Your task to perform on an android device: Search for "bose soundlink mini" on walmart, select the first entry, and add it to the cart. Image 0: 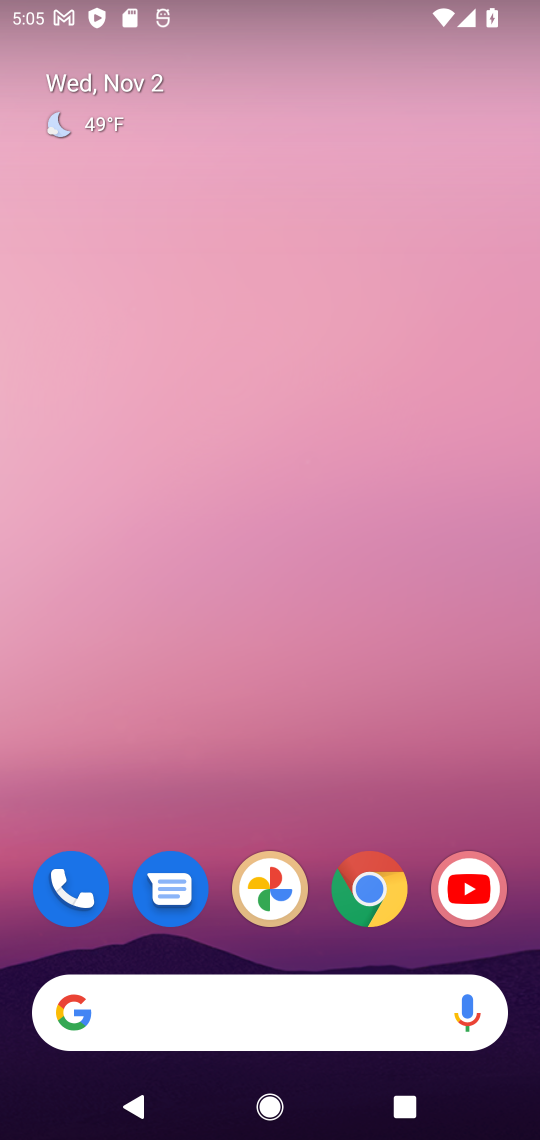
Step 0: click (358, 889)
Your task to perform on an android device: Search for "bose soundlink mini" on walmart, select the first entry, and add it to the cart. Image 1: 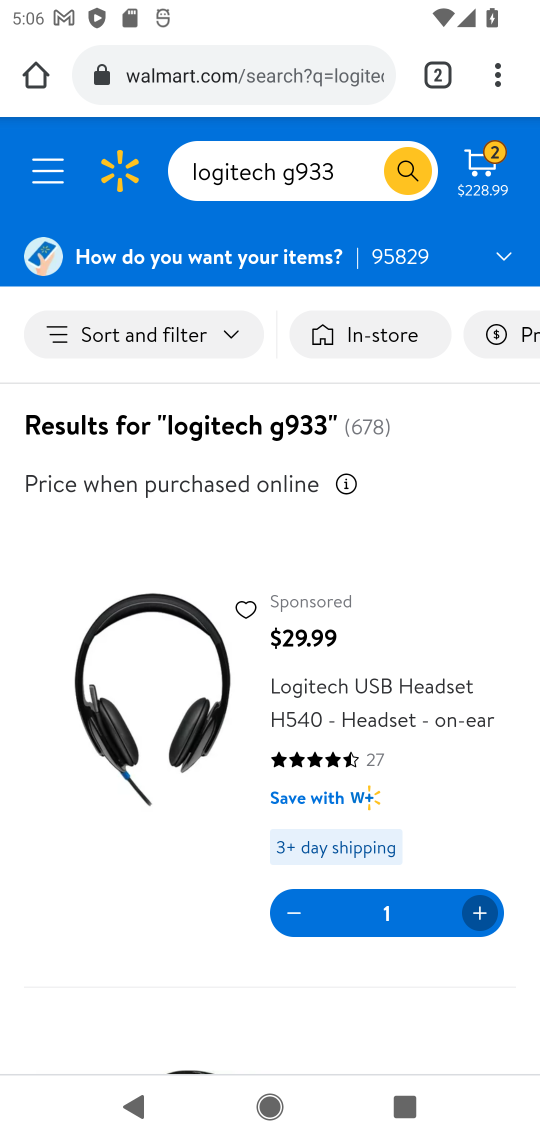
Step 1: click (302, 184)
Your task to perform on an android device: Search for "bose soundlink mini" on walmart, select the first entry, and add it to the cart. Image 2: 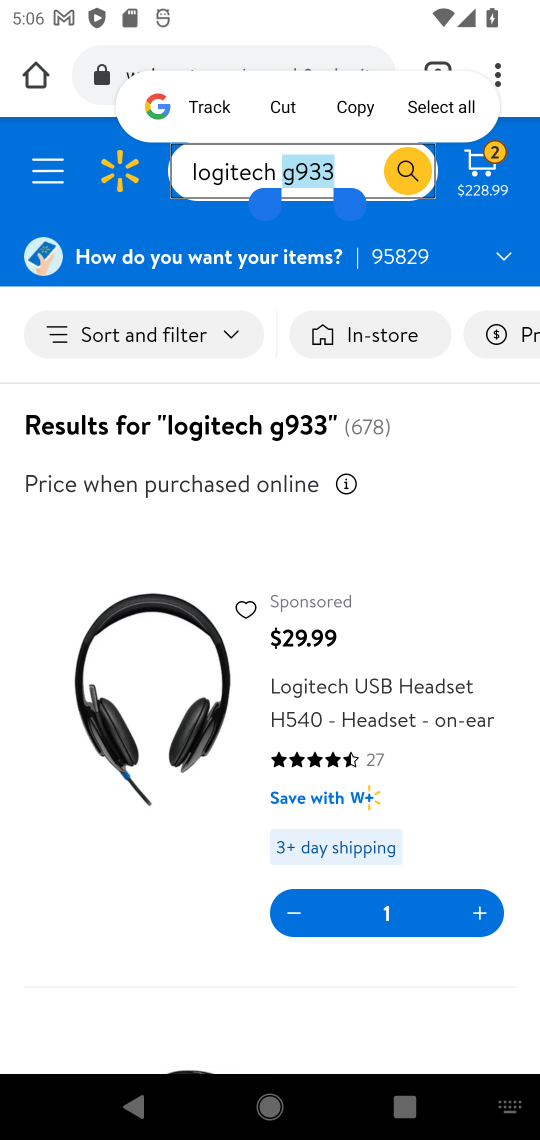
Step 2: click (353, 171)
Your task to perform on an android device: Search for "bose soundlink mini" on walmart, select the first entry, and add it to the cart. Image 3: 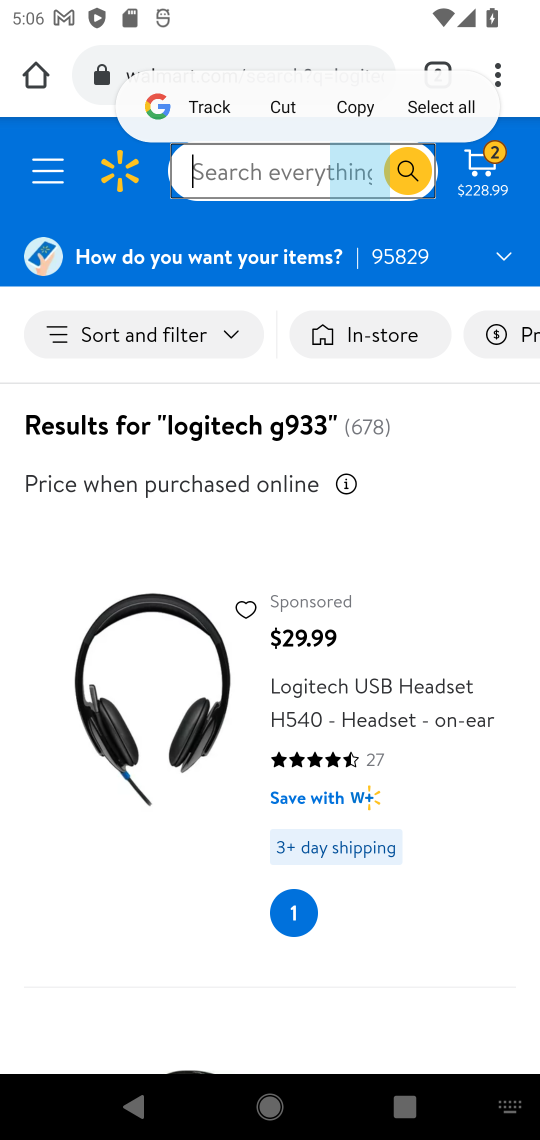
Step 3: click (407, 165)
Your task to perform on an android device: Search for "bose soundlink mini" on walmart, select the first entry, and add it to the cart. Image 4: 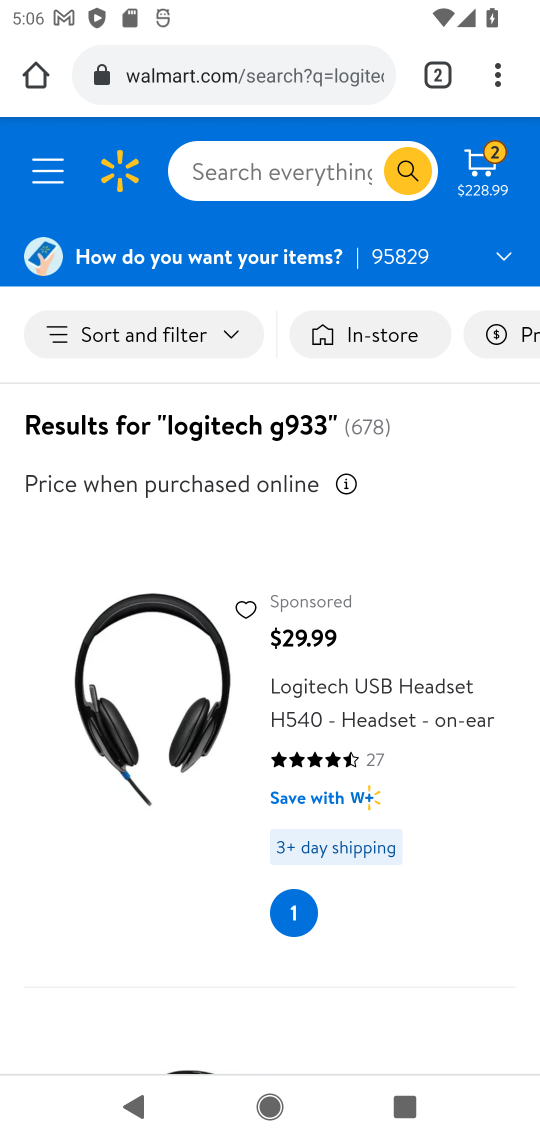
Step 4: click (302, 171)
Your task to perform on an android device: Search for "bose soundlink mini" on walmart, select the first entry, and add it to the cart. Image 5: 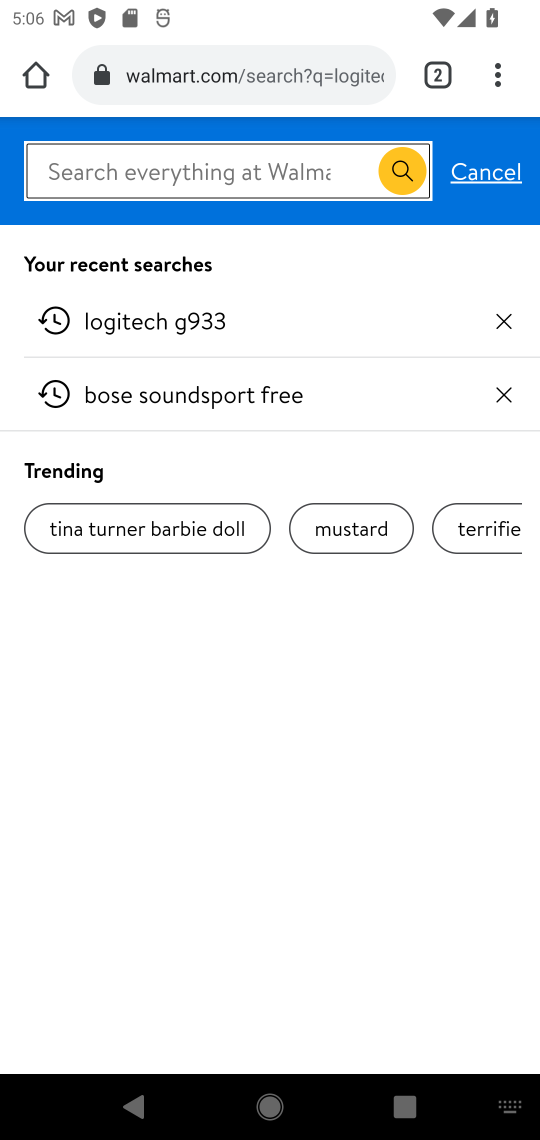
Step 5: type "bose soundlink mini"
Your task to perform on an android device: Search for "bose soundlink mini" on walmart, select the first entry, and add it to the cart. Image 6: 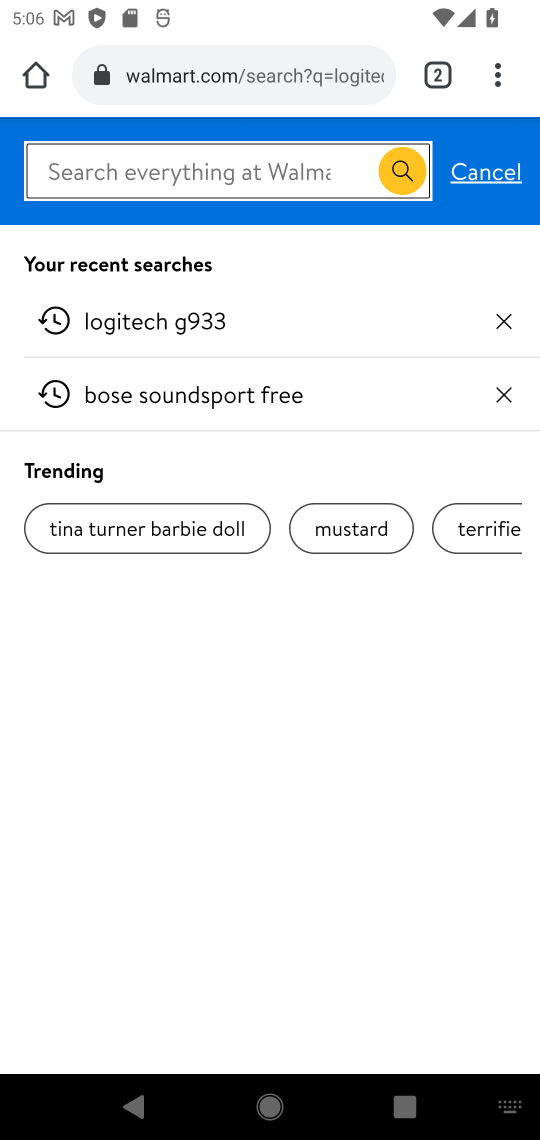
Step 6: press enter
Your task to perform on an android device: Search for "bose soundlink mini" on walmart, select the first entry, and add it to the cart. Image 7: 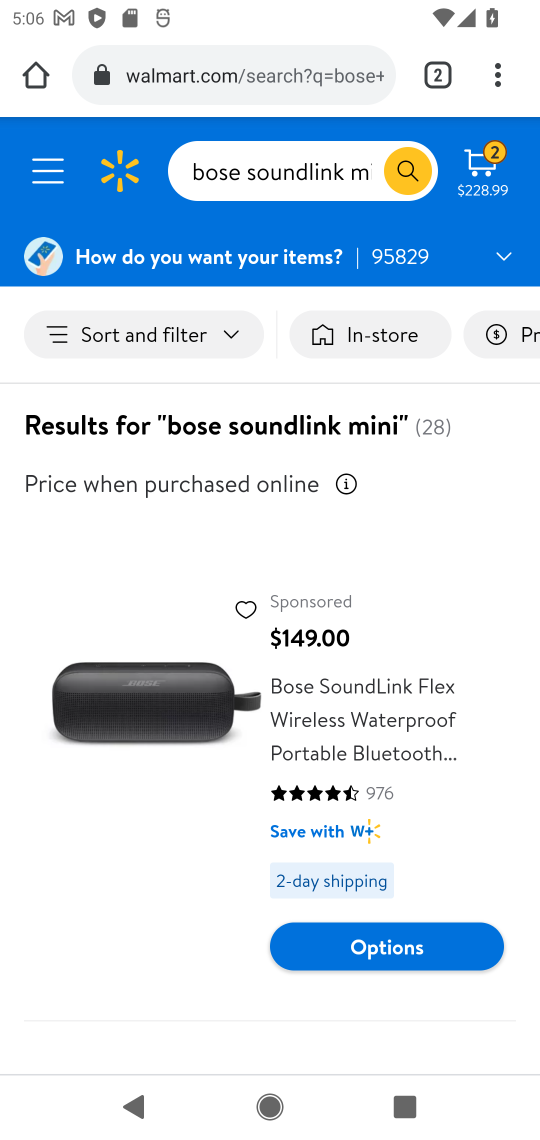
Step 7: click (384, 756)
Your task to perform on an android device: Search for "bose soundlink mini" on walmart, select the first entry, and add it to the cart. Image 8: 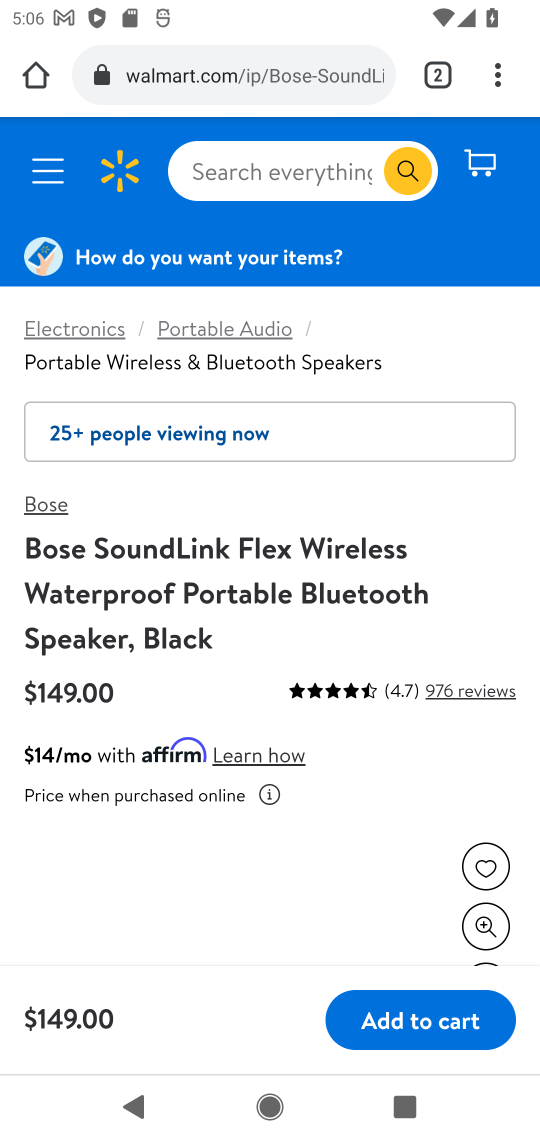
Step 8: drag from (282, 922) to (430, 708)
Your task to perform on an android device: Search for "bose soundlink mini" on walmart, select the first entry, and add it to the cart. Image 9: 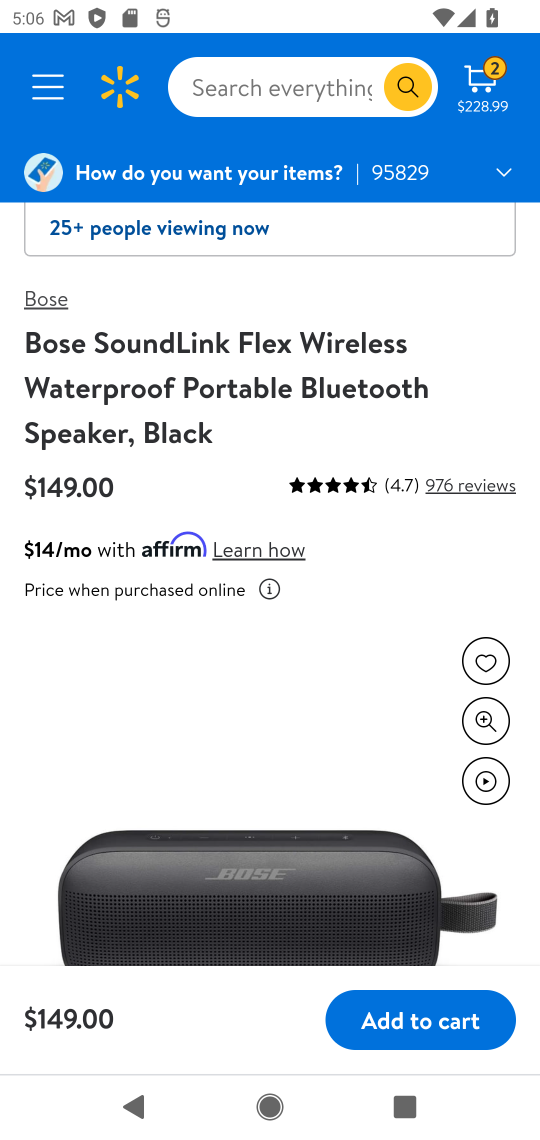
Step 9: drag from (332, 779) to (533, 380)
Your task to perform on an android device: Search for "bose soundlink mini" on walmart, select the first entry, and add it to the cart. Image 10: 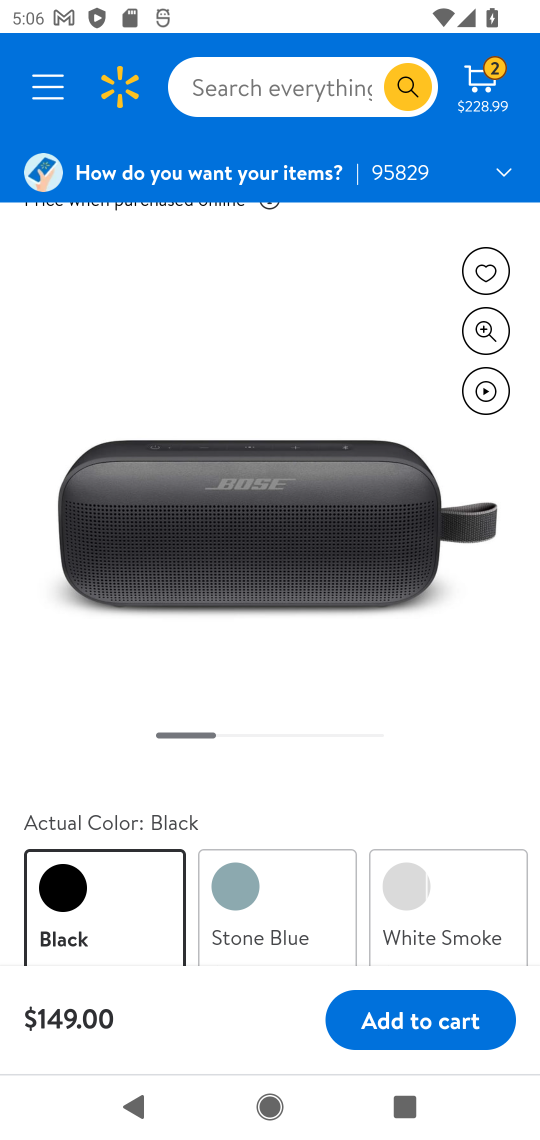
Step 10: click (407, 1024)
Your task to perform on an android device: Search for "bose soundlink mini" on walmart, select the first entry, and add it to the cart. Image 11: 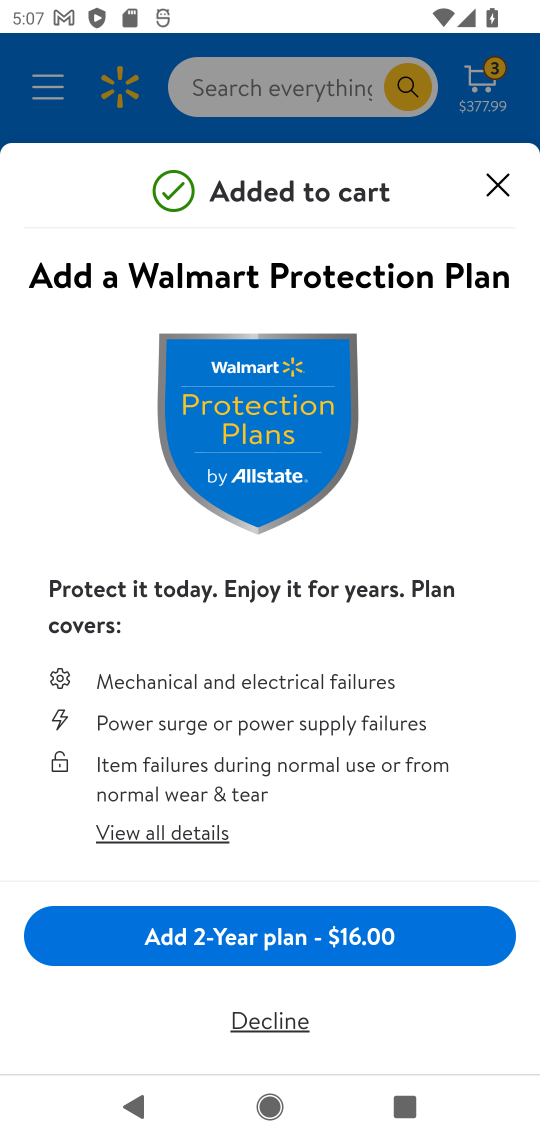
Step 11: click (494, 178)
Your task to perform on an android device: Search for "bose soundlink mini" on walmart, select the first entry, and add it to the cart. Image 12: 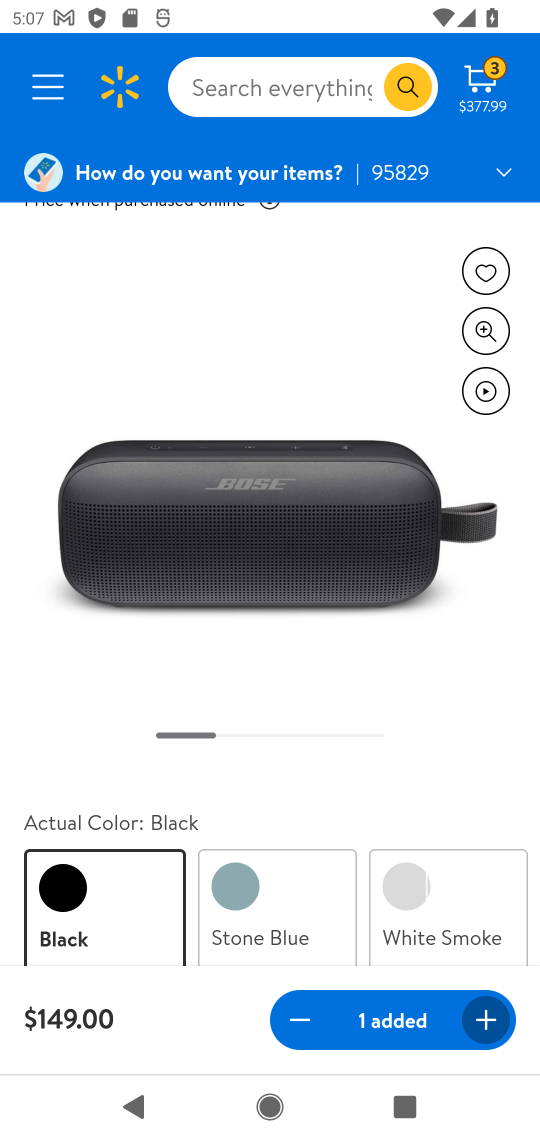
Step 12: task complete